Your task to perform on an android device: change notifications settings Image 0: 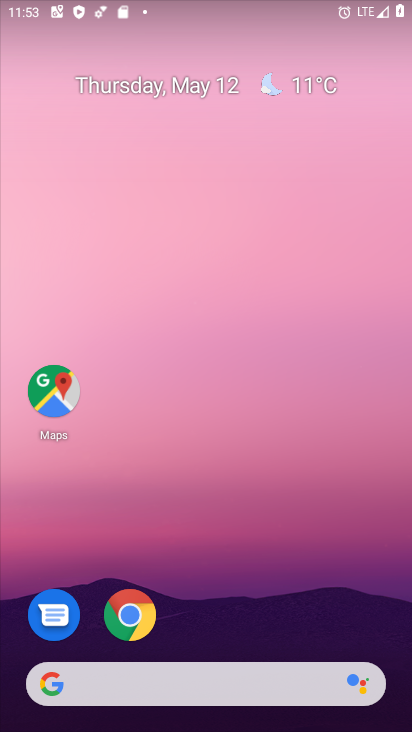
Step 0: drag from (282, 557) to (209, 28)
Your task to perform on an android device: change notifications settings Image 1: 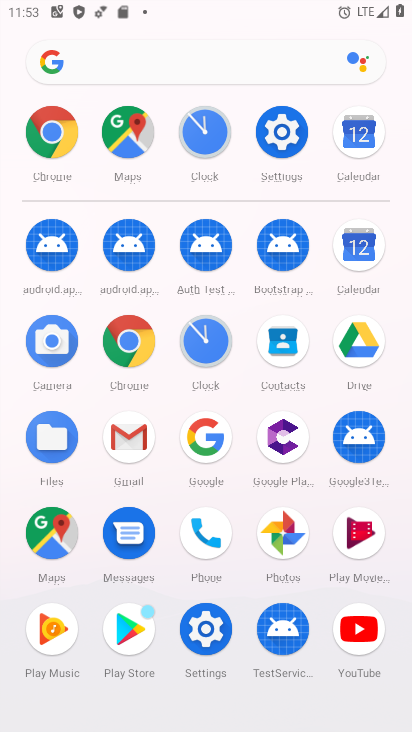
Step 1: click (269, 128)
Your task to perform on an android device: change notifications settings Image 2: 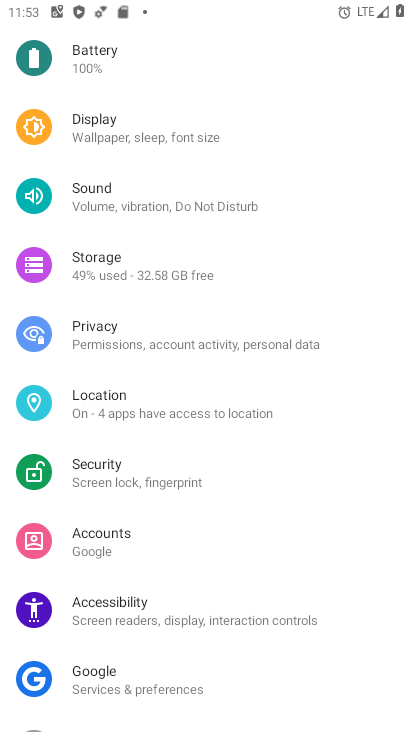
Step 2: drag from (249, 256) to (224, 636)
Your task to perform on an android device: change notifications settings Image 3: 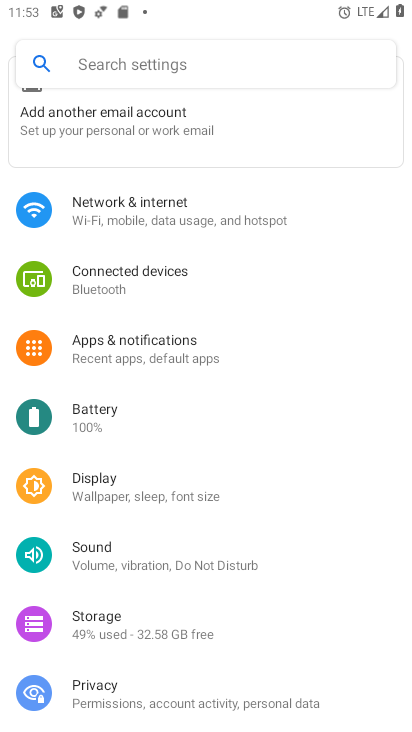
Step 3: click (186, 348)
Your task to perform on an android device: change notifications settings Image 4: 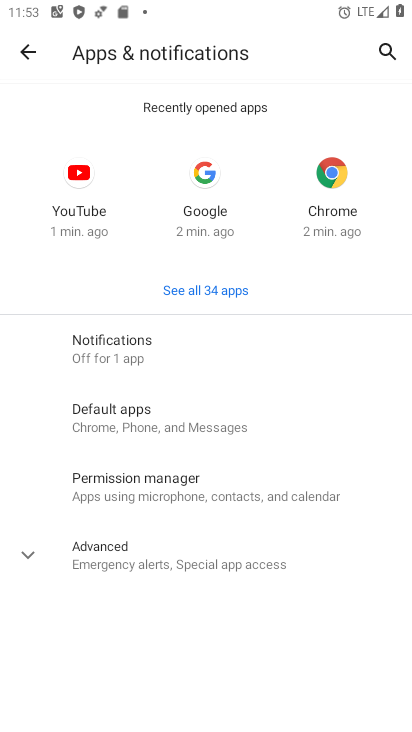
Step 4: click (186, 348)
Your task to perform on an android device: change notifications settings Image 5: 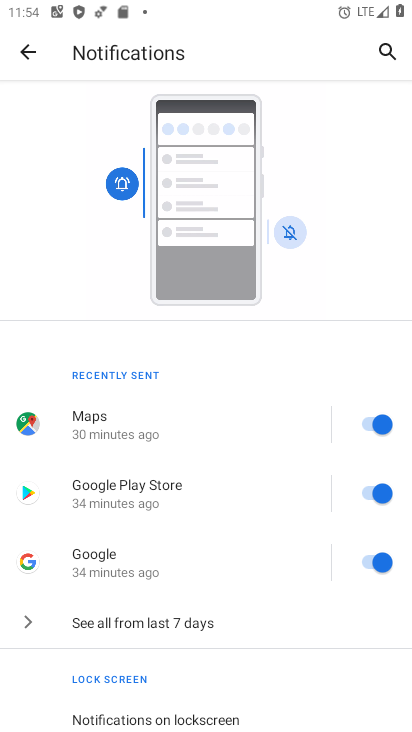
Step 5: click (149, 680)
Your task to perform on an android device: change notifications settings Image 6: 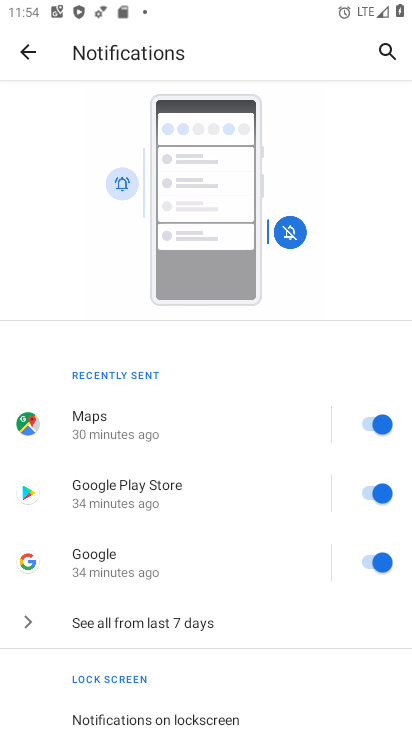
Step 6: click (194, 618)
Your task to perform on an android device: change notifications settings Image 7: 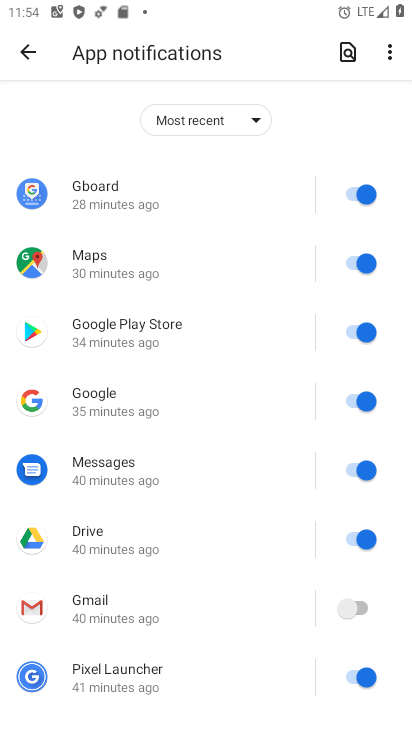
Step 7: click (366, 185)
Your task to perform on an android device: change notifications settings Image 8: 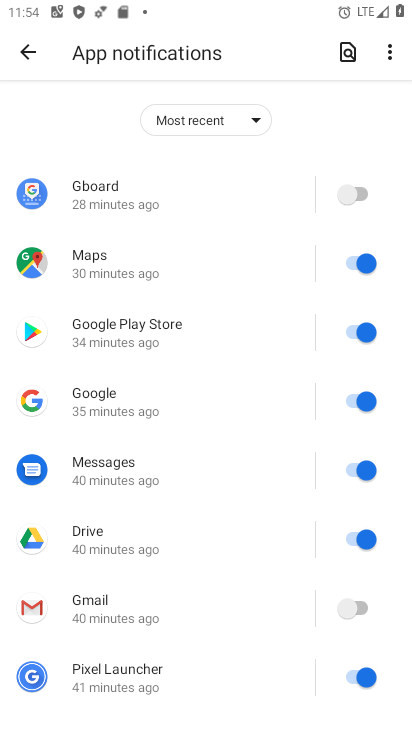
Step 8: click (371, 255)
Your task to perform on an android device: change notifications settings Image 9: 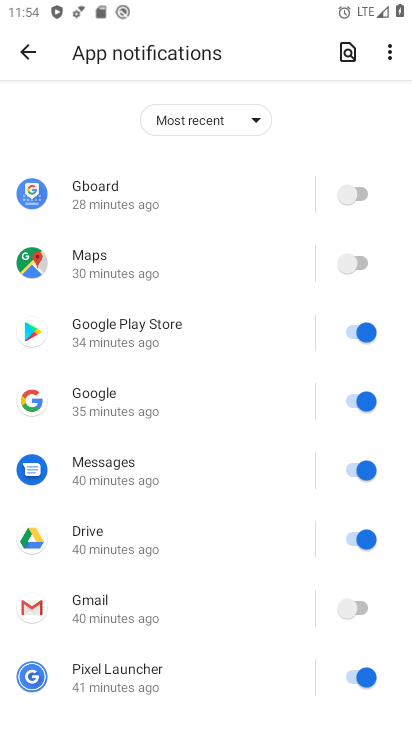
Step 9: click (373, 329)
Your task to perform on an android device: change notifications settings Image 10: 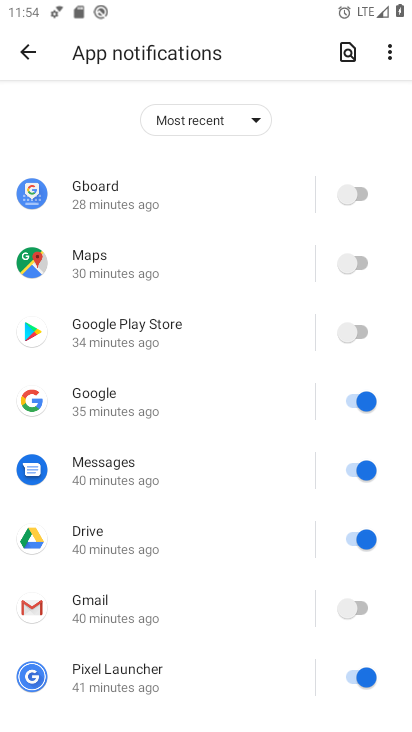
Step 10: click (369, 402)
Your task to perform on an android device: change notifications settings Image 11: 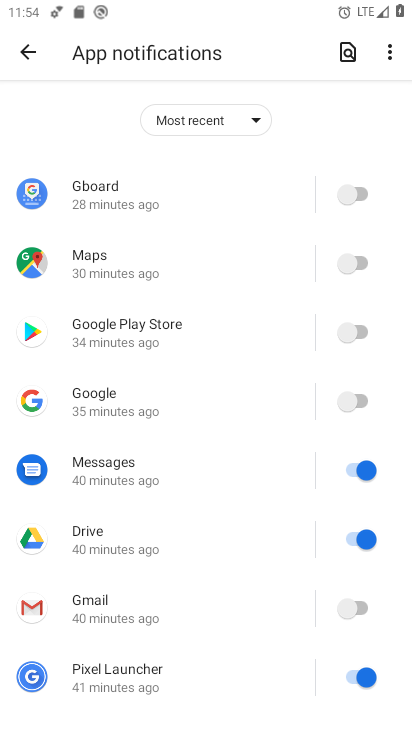
Step 11: click (363, 451)
Your task to perform on an android device: change notifications settings Image 12: 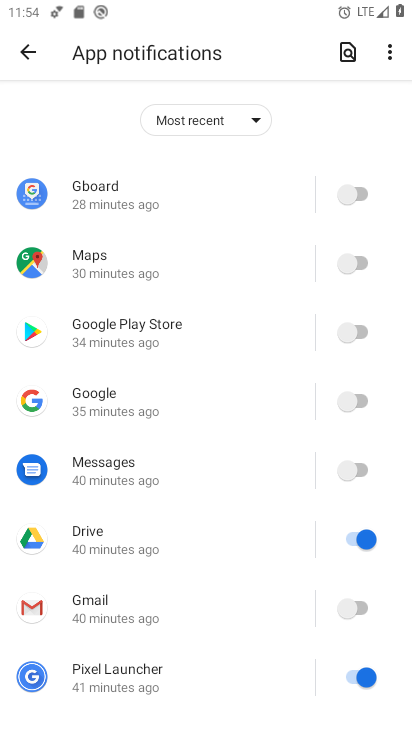
Step 12: click (371, 533)
Your task to perform on an android device: change notifications settings Image 13: 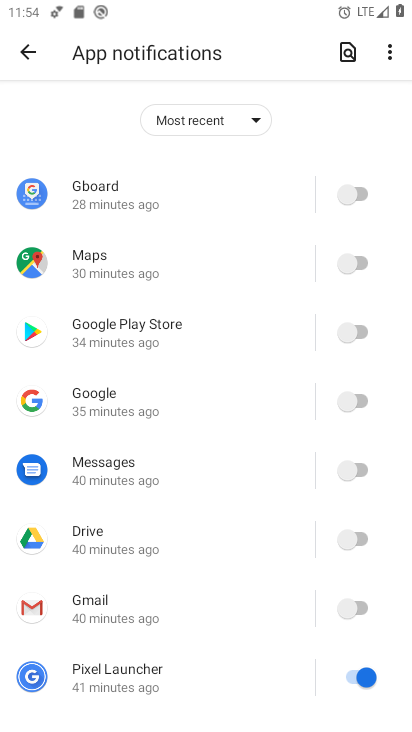
Step 13: click (367, 606)
Your task to perform on an android device: change notifications settings Image 14: 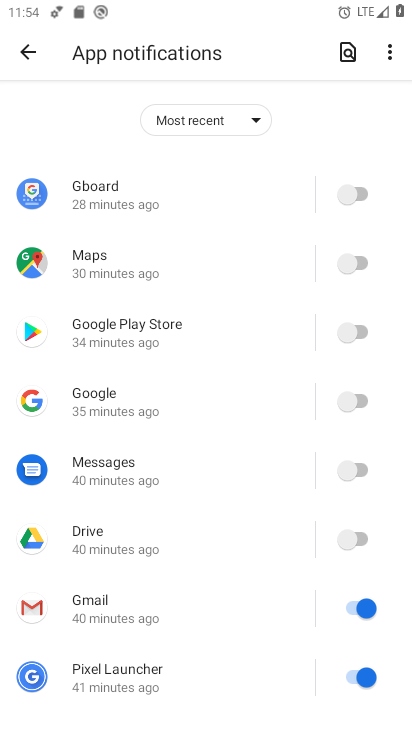
Step 14: click (364, 663)
Your task to perform on an android device: change notifications settings Image 15: 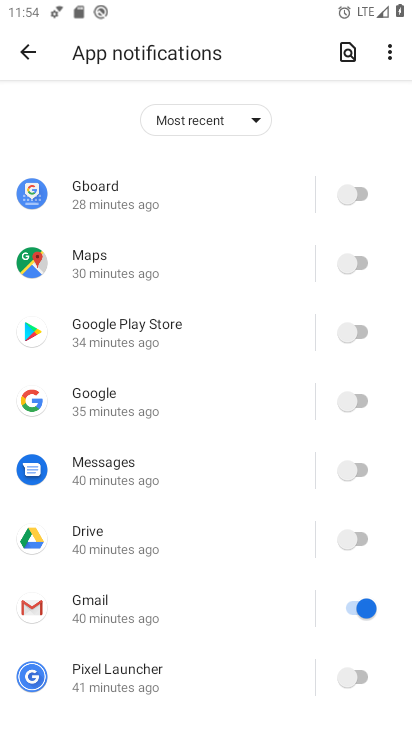
Step 15: task complete